Your task to perform on an android device: toggle notification dots Image 0: 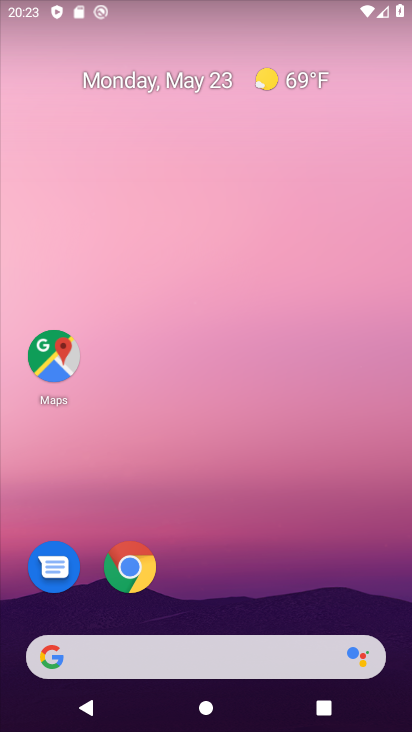
Step 0: drag from (205, 602) to (294, 59)
Your task to perform on an android device: toggle notification dots Image 1: 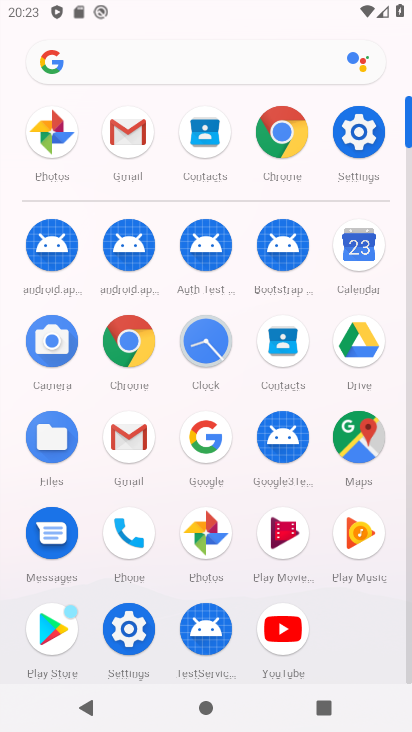
Step 1: click (356, 156)
Your task to perform on an android device: toggle notification dots Image 2: 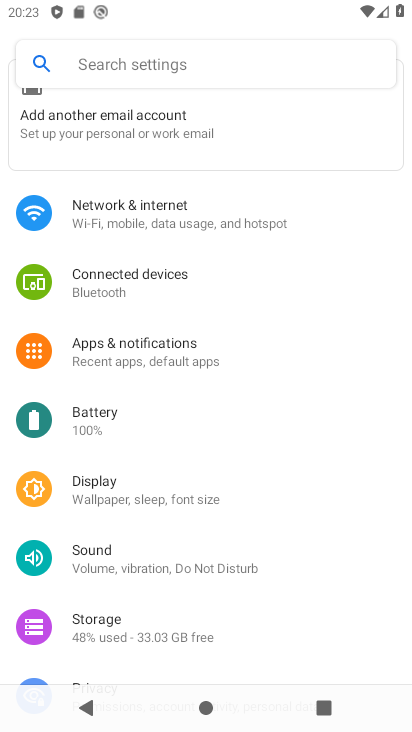
Step 2: click (181, 356)
Your task to perform on an android device: toggle notification dots Image 3: 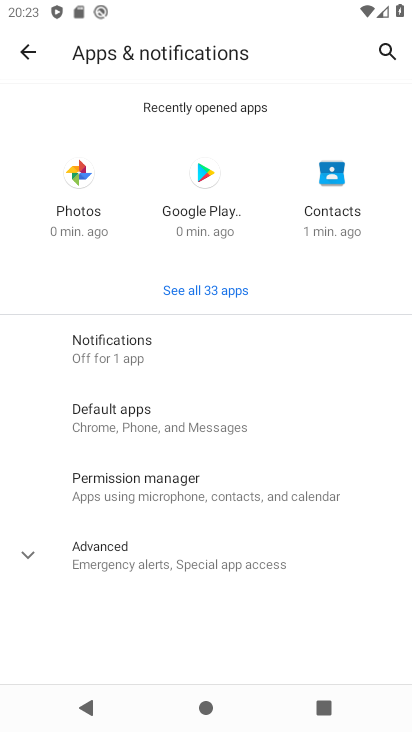
Step 3: click (134, 361)
Your task to perform on an android device: toggle notification dots Image 4: 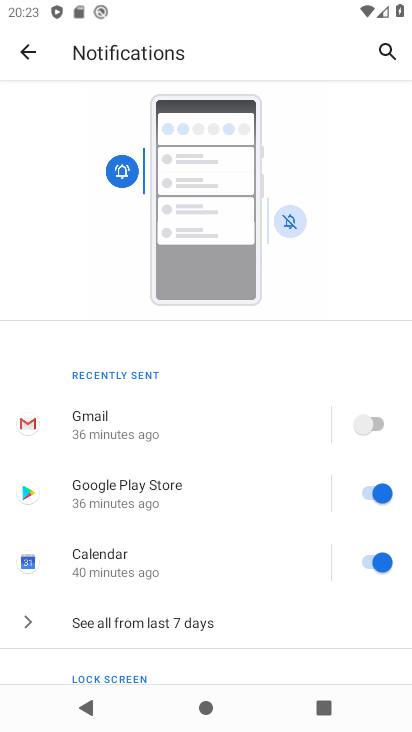
Step 4: drag from (130, 528) to (180, 230)
Your task to perform on an android device: toggle notification dots Image 5: 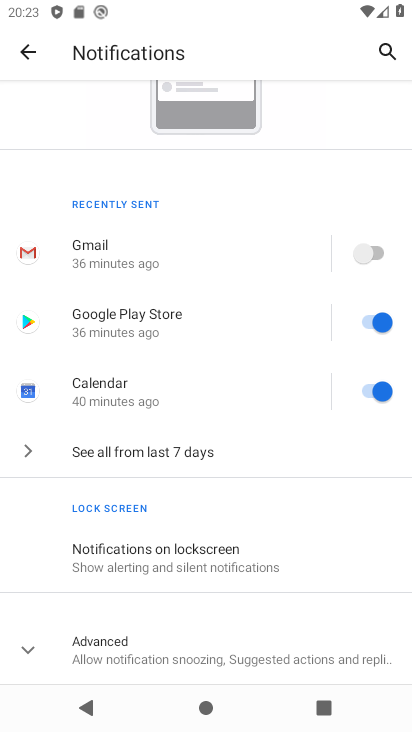
Step 5: click (148, 652)
Your task to perform on an android device: toggle notification dots Image 6: 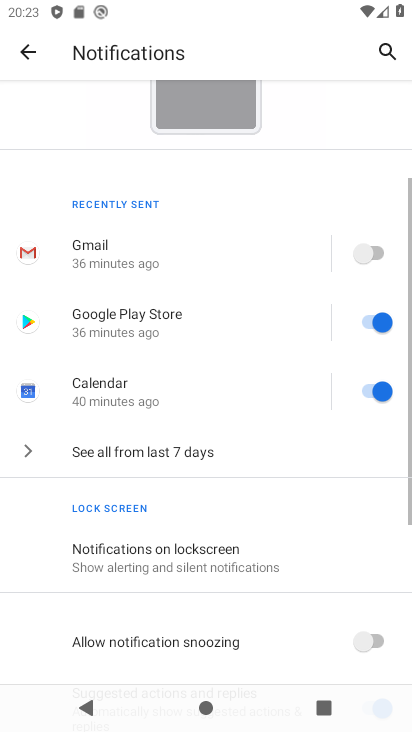
Step 6: drag from (162, 652) to (228, 147)
Your task to perform on an android device: toggle notification dots Image 7: 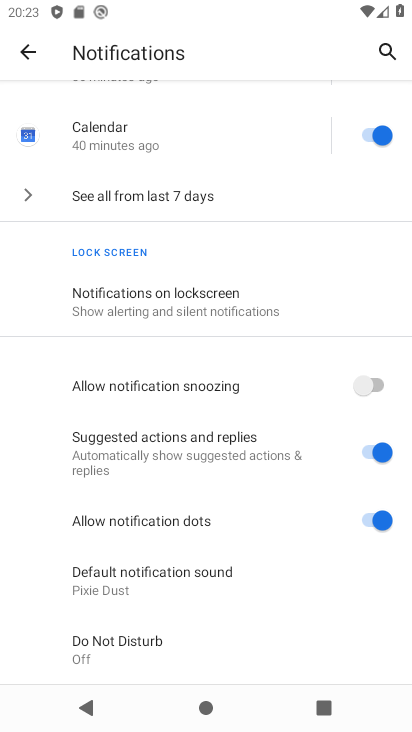
Step 7: click (362, 517)
Your task to perform on an android device: toggle notification dots Image 8: 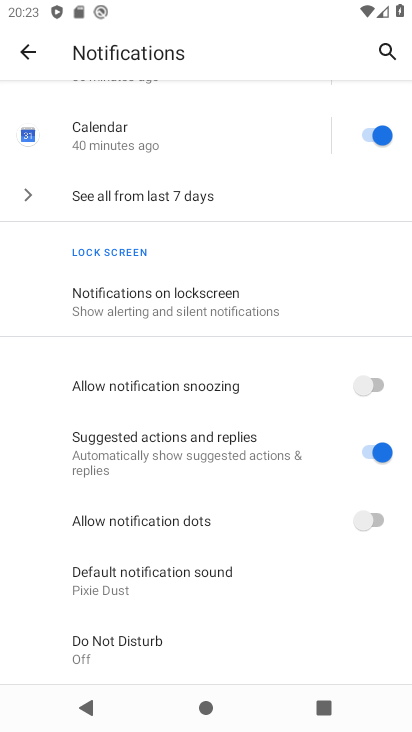
Step 8: task complete